Your task to perform on an android device: turn smart compose on in the gmail app Image 0: 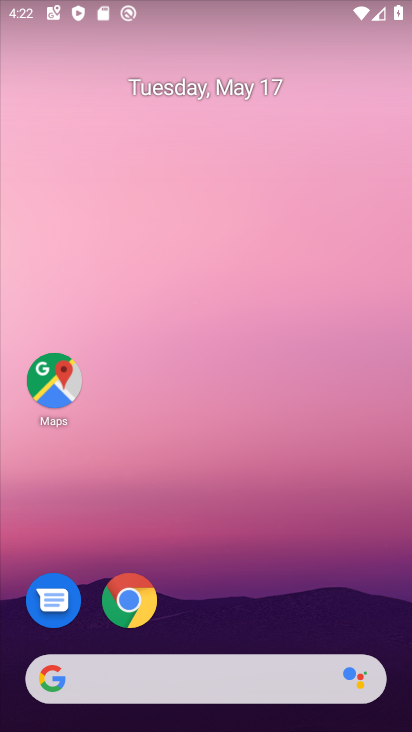
Step 0: drag from (227, 604) to (340, 43)
Your task to perform on an android device: turn smart compose on in the gmail app Image 1: 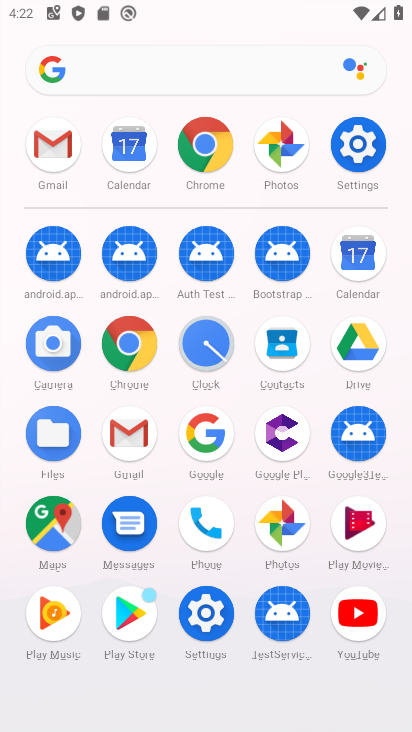
Step 1: click (132, 437)
Your task to perform on an android device: turn smart compose on in the gmail app Image 2: 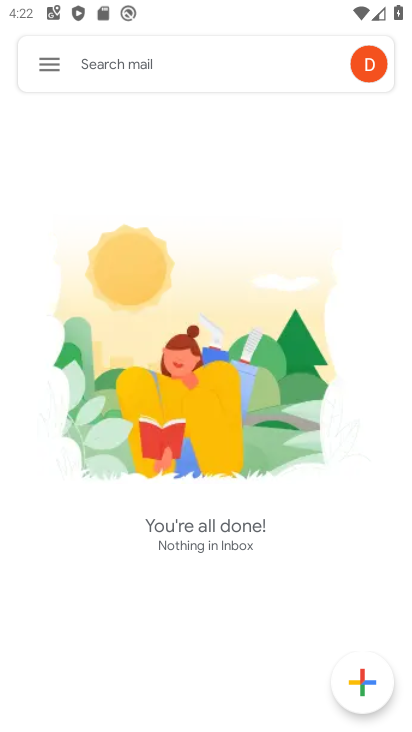
Step 2: click (44, 65)
Your task to perform on an android device: turn smart compose on in the gmail app Image 3: 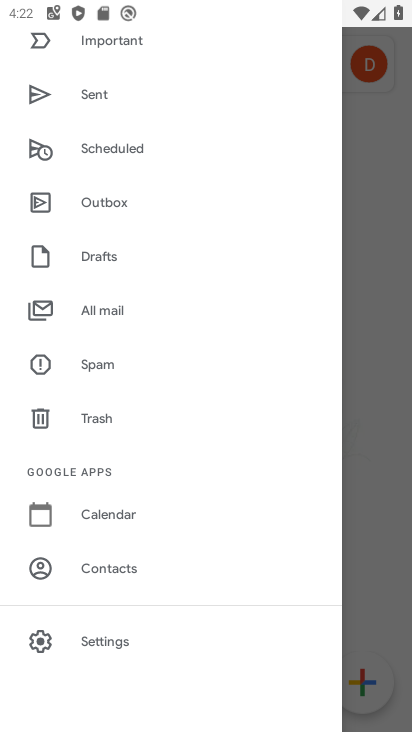
Step 3: click (111, 638)
Your task to perform on an android device: turn smart compose on in the gmail app Image 4: 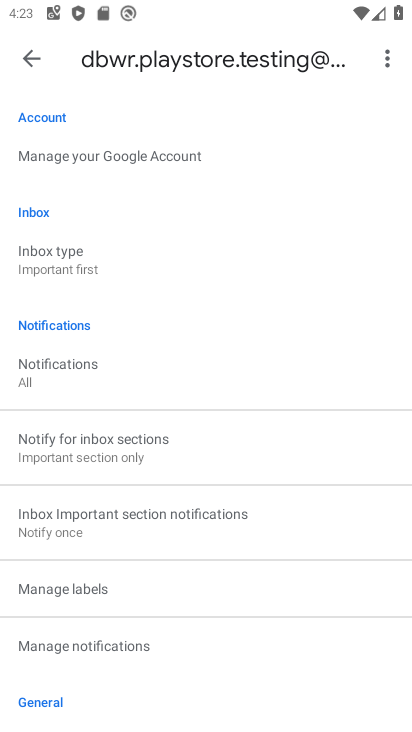
Step 4: task complete